Your task to perform on an android device: open a bookmark in the chrome app Image 0: 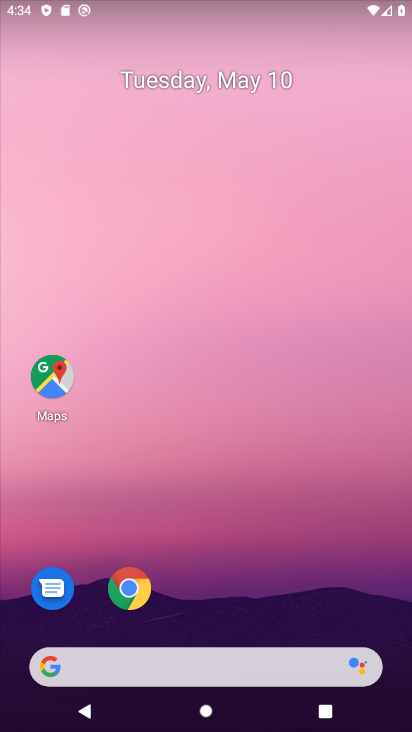
Step 0: click (139, 586)
Your task to perform on an android device: open a bookmark in the chrome app Image 1: 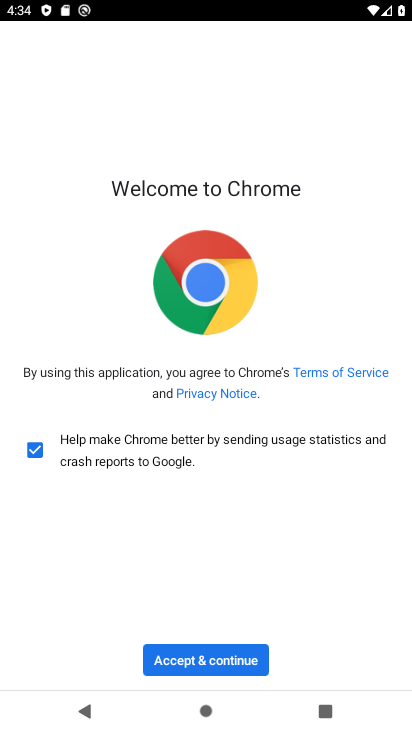
Step 1: click (185, 655)
Your task to perform on an android device: open a bookmark in the chrome app Image 2: 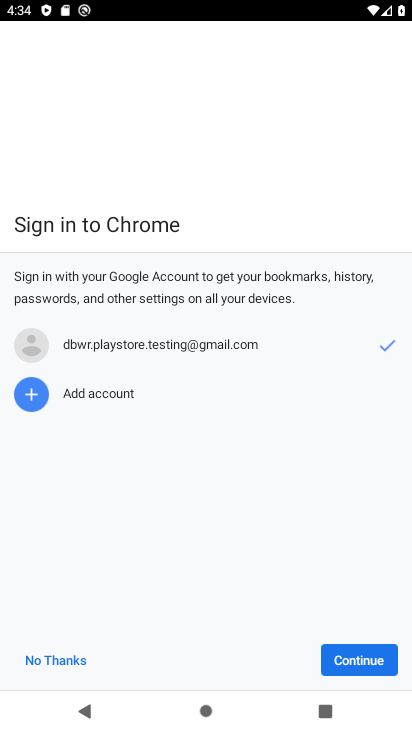
Step 2: click (364, 659)
Your task to perform on an android device: open a bookmark in the chrome app Image 3: 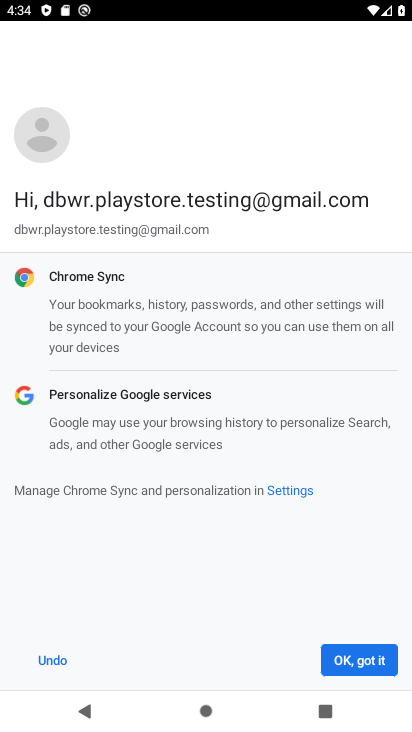
Step 3: click (364, 659)
Your task to perform on an android device: open a bookmark in the chrome app Image 4: 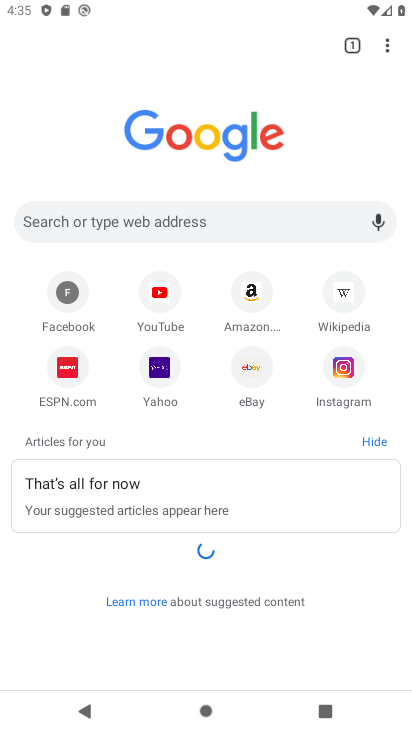
Step 4: click (386, 44)
Your task to perform on an android device: open a bookmark in the chrome app Image 5: 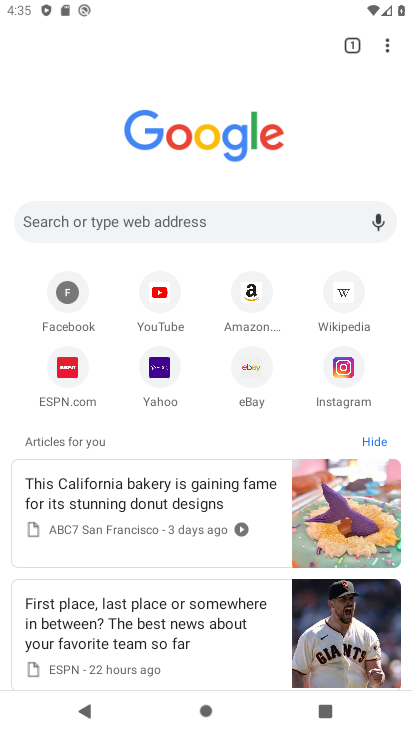
Step 5: click (386, 44)
Your task to perform on an android device: open a bookmark in the chrome app Image 6: 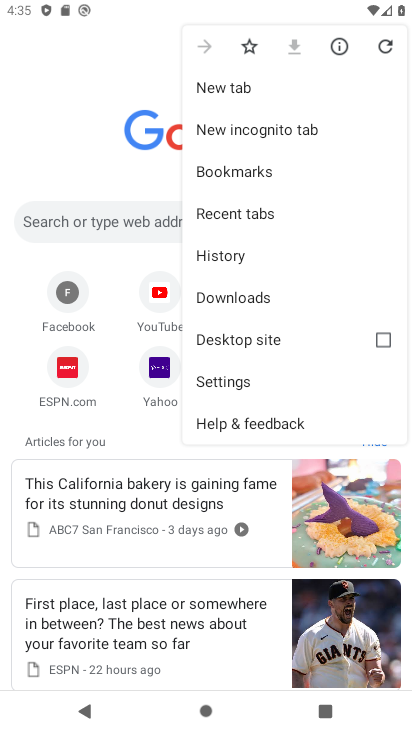
Step 6: click (265, 168)
Your task to perform on an android device: open a bookmark in the chrome app Image 7: 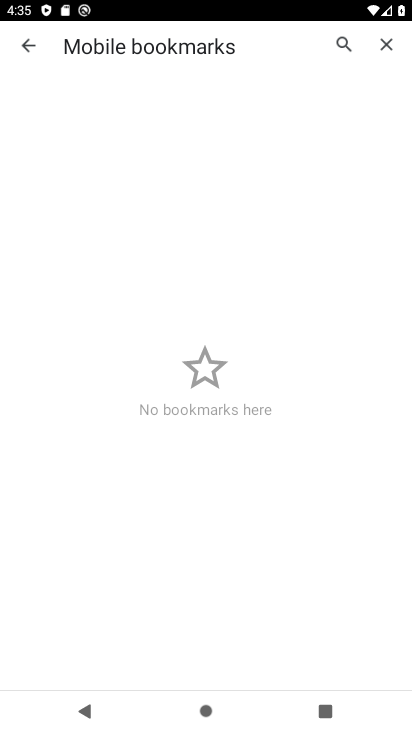
Step 7: task complete